Your task to perform on an android device: Turn off the flashlight Image 0: 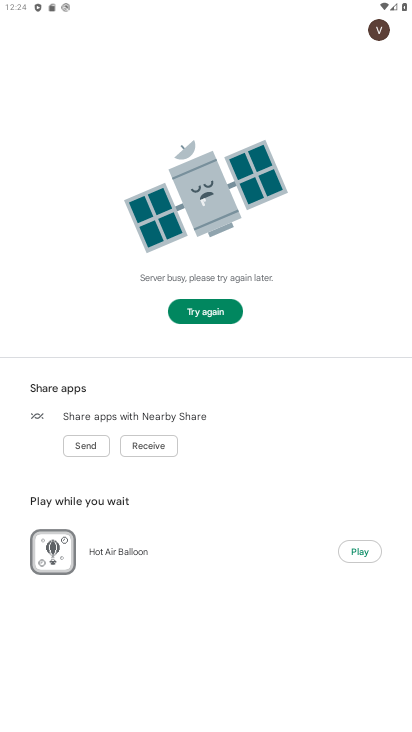
Step 0: press home button
Your task to perform on an android device: Turn off the flashlight Image 1: 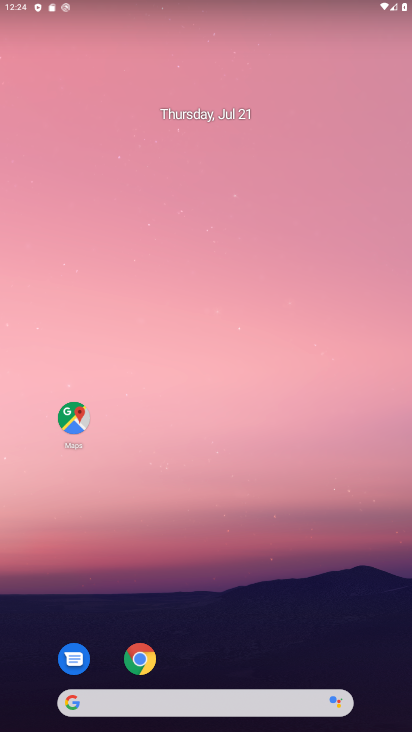
Step 1: drag from (174, 700) to (225, 61)
Your task to perform on an android device: Turn off the flashlight Image 2: 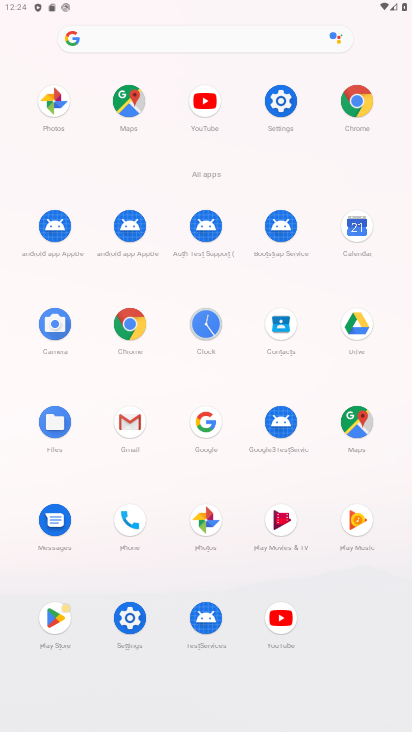
Step 2: click (279, 99)
Your task to perform on an android device: Turn off the flashlight Image 3: 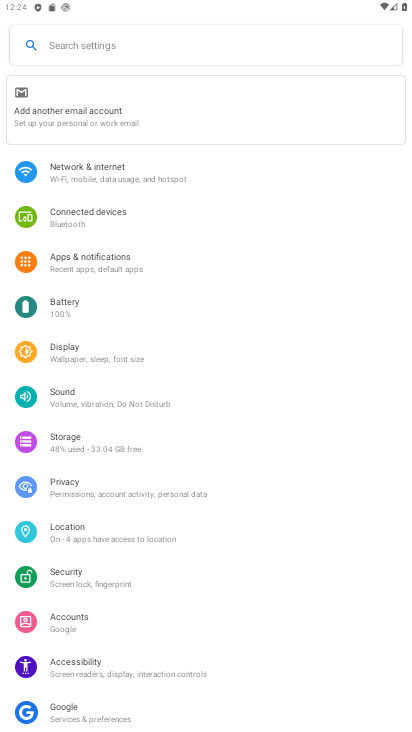
Step 3: click (87, 352)
Your task to perform on an android device: Turn off the flashlight Image 4: 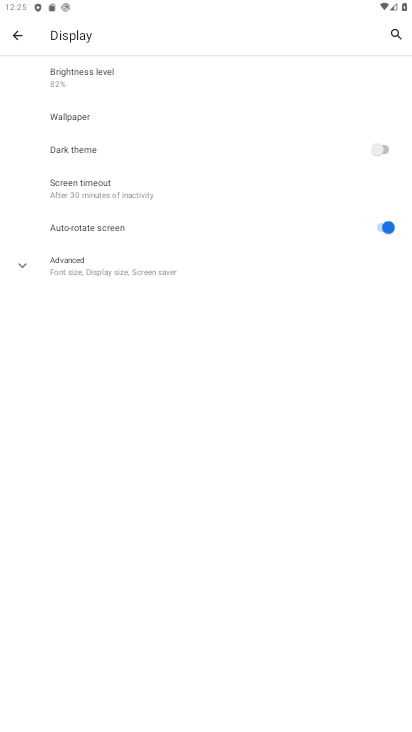
Step 4: click (134, 271)
Your task to perform on an android device: Turn off the flashlight Image 5: 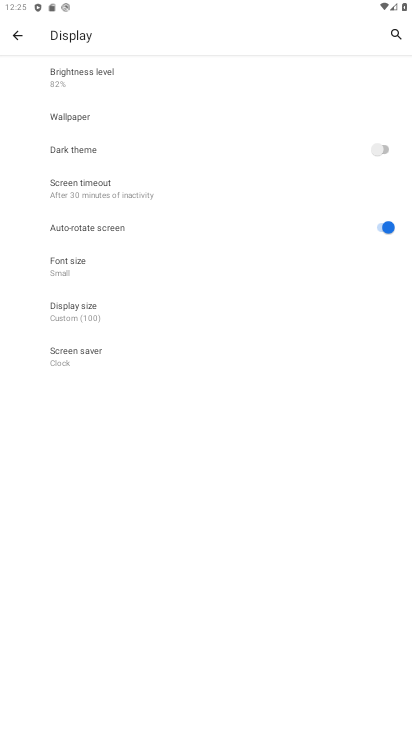
Step 5: press back button
Your task to perform on an android device: Turn off the flashlight Image 6: 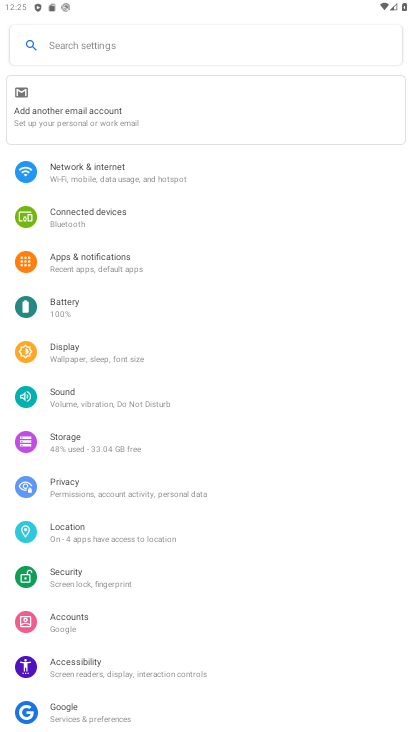
Step 6: click (72, 310)
Your task to perform on an android device: Turn off the flashlight Image 7: 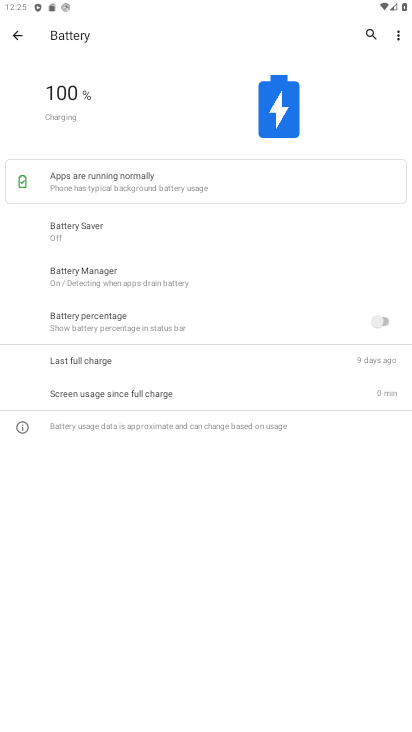
Step 7: task complete